Your task to perform on an android device: set an alarm Image 0: 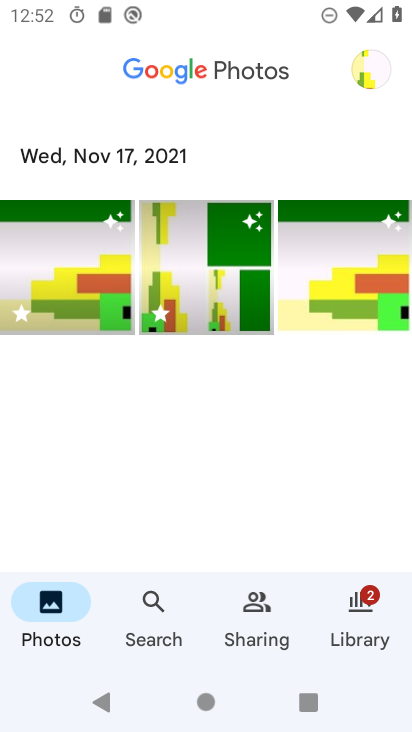
Step 0: press home button
Your task to perform on an android device: set an alarm Image 1: 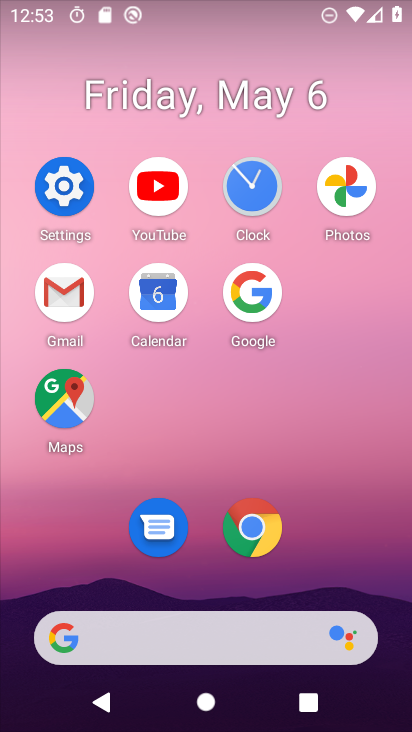
Step 1: click (269, 200)
Your task to perform on an android device: set an alarm Image 2: 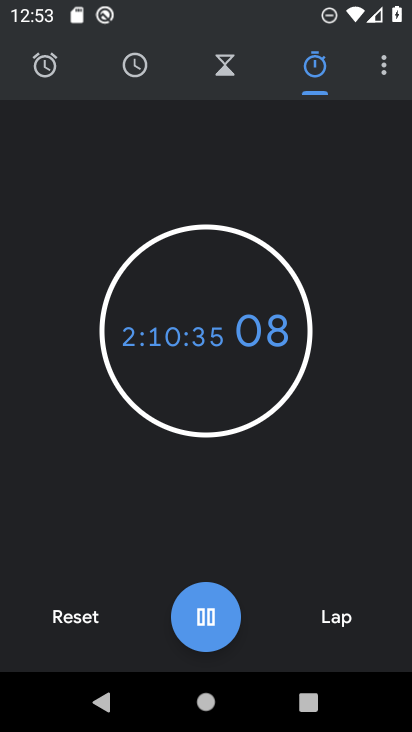
Step 2: click (41, 64)
Your task to perform on an android device: set an alarm Image 3: 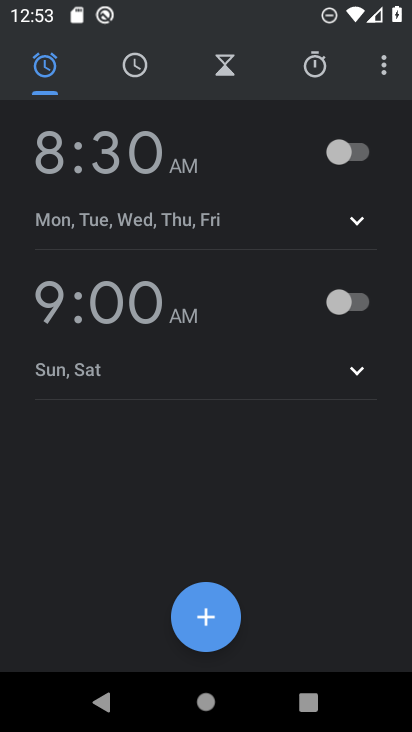
Step 3: click (347, 172)
Your task to perform on an android device: set an alarm Image 4: 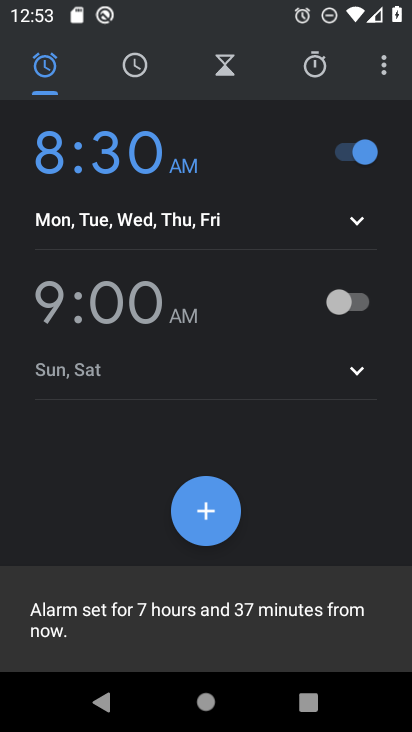
Step 4: task complete